Your task to perform on an android device: change the clock display to digital Image 0: 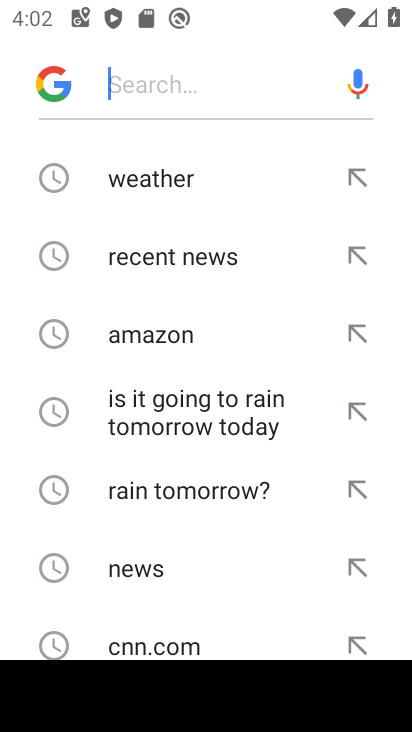
Step 0: press back button
Your task to perform on an android device: change the clock display to digital Image 1: 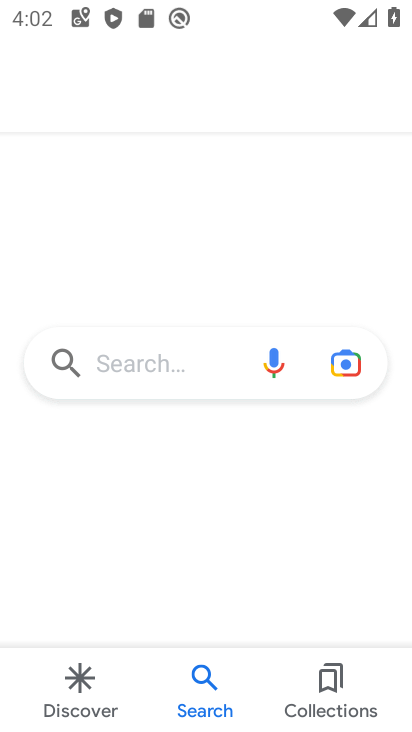
Step 1: press back button
Your task to perform on an android device: change the clock display to digital Image 2: 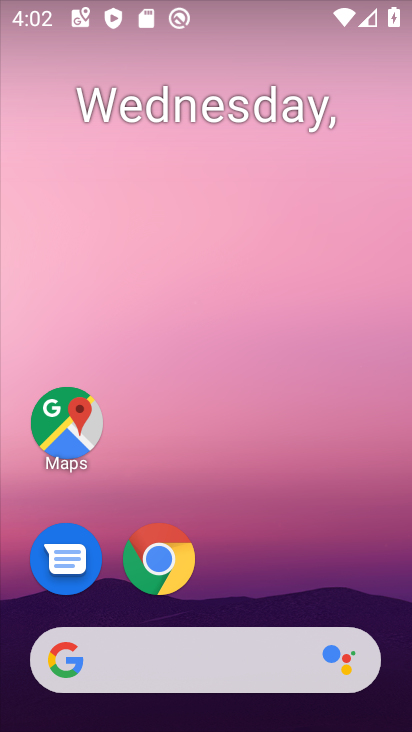
Step 2: drag from (255, 600) to (325, 21)
Your task to perform on an android device: change the clock display to digital Image 3: 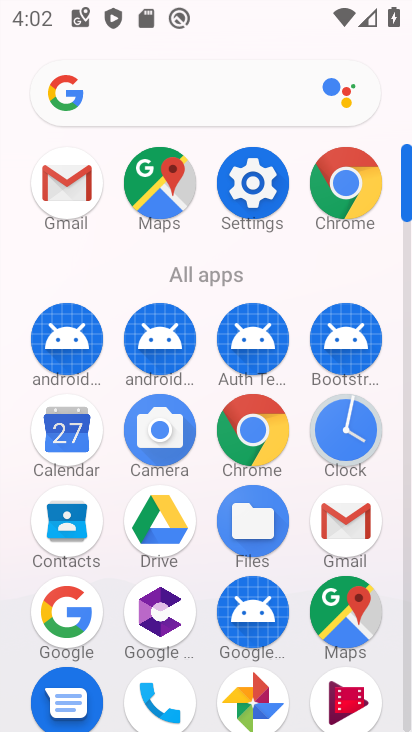
Step 3: click (353, 436)
Your task to perform on an android device: change the clock display to digital Image 4: 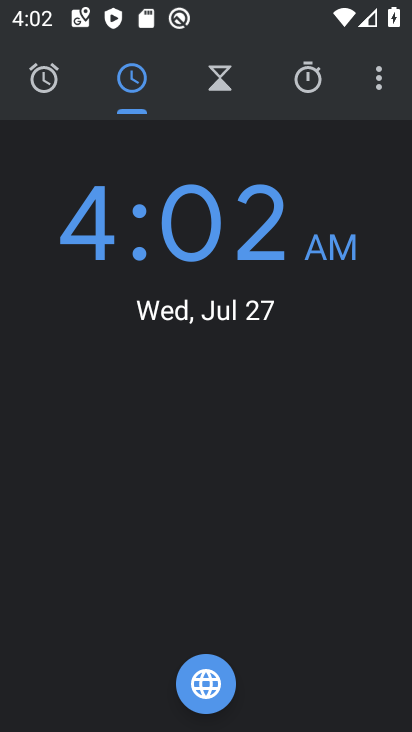
Step 4: click (372, 83)
Your task to perform on an android device: change the clock display to digital Image 5: 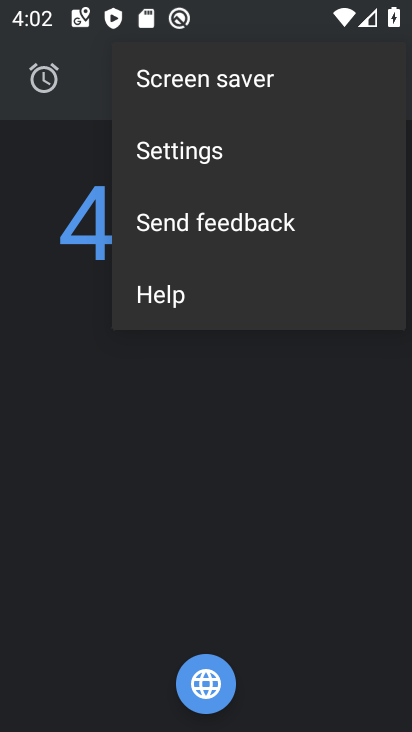
Step 5: click (207, 153)
Your task to perform on an android device: change the clock display to digital Image 6: 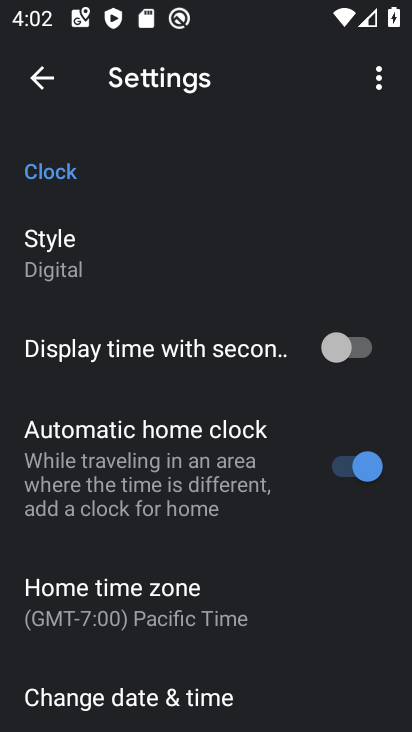
Step 6: task complete